Your task to perform on an android device: Open wifi settings Image 0: 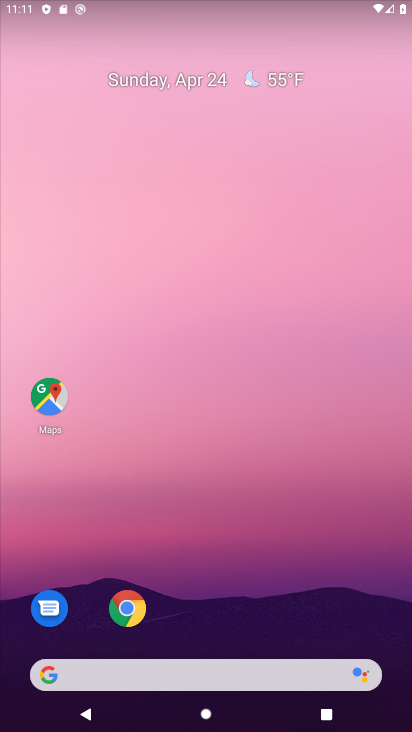
Step 0: drag from (198, 539) to (287, 1)
Your task to perform on an android device: Open wifi settings Image 1: 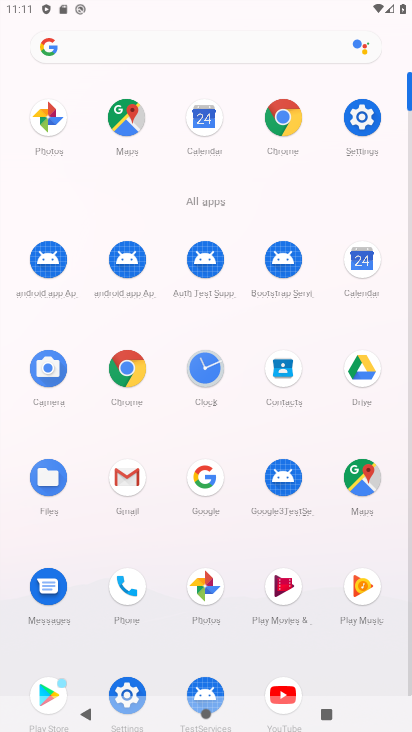
Step 1: click (357, 115)
Your task to perform on an android device: Open wifi settings Image 2: 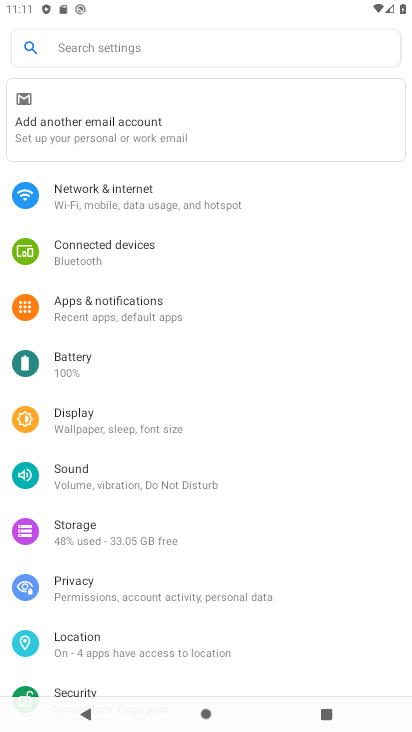
Step 2: click (148, 196)
Your task to perform on an android device: Open wifi settings Image 3: 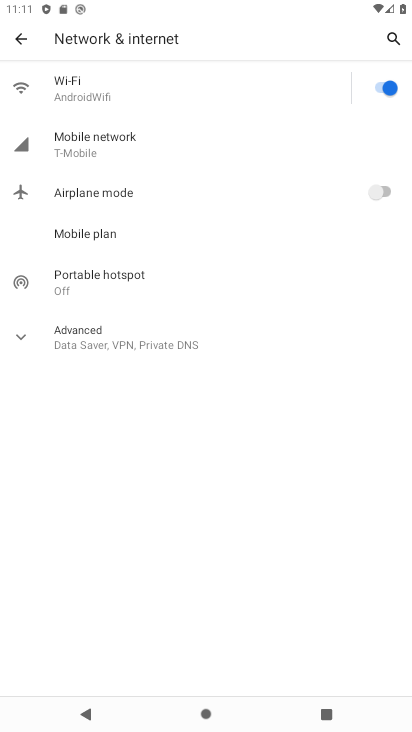
Step 3: click (105, 93)
Your task to perform on an android device: Open wifi settings Image 4: 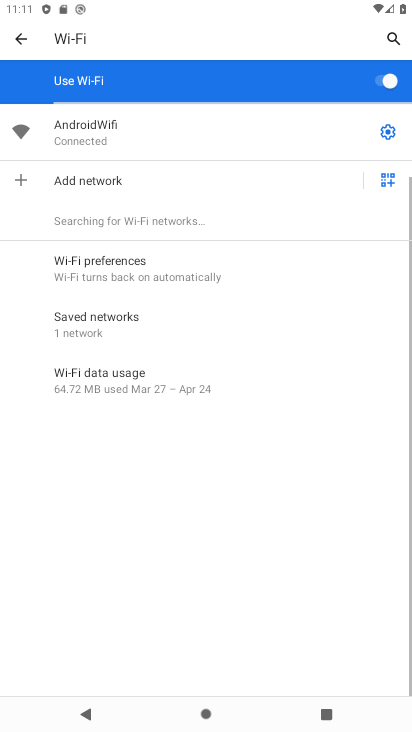
Step 4: task complete